Your task to perform on an android device: uninstall "Pinterest" Image 0: 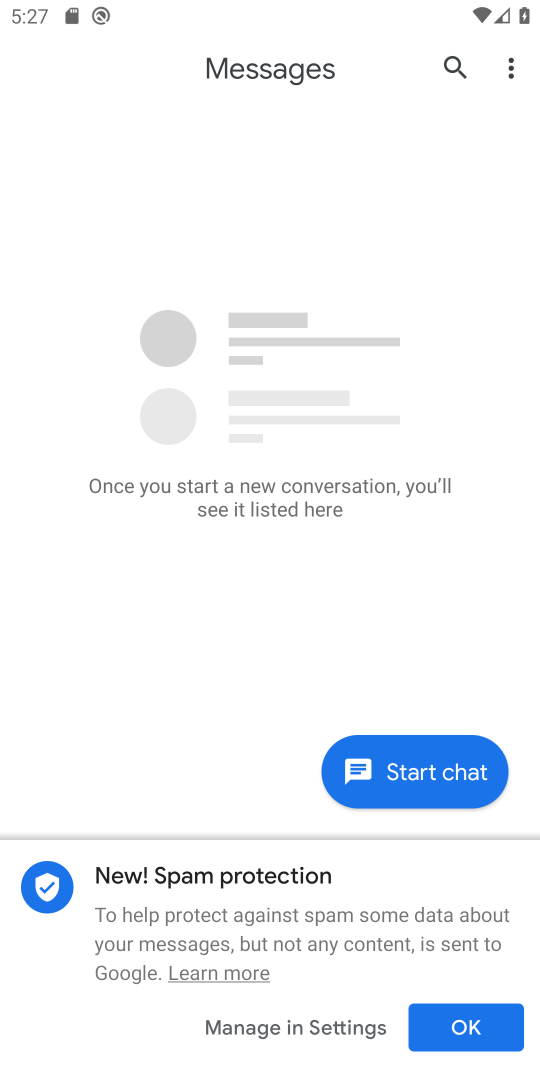
Step 0: press back button
Your task to perform on an android device: uninstall "Pinterest" Image 1: 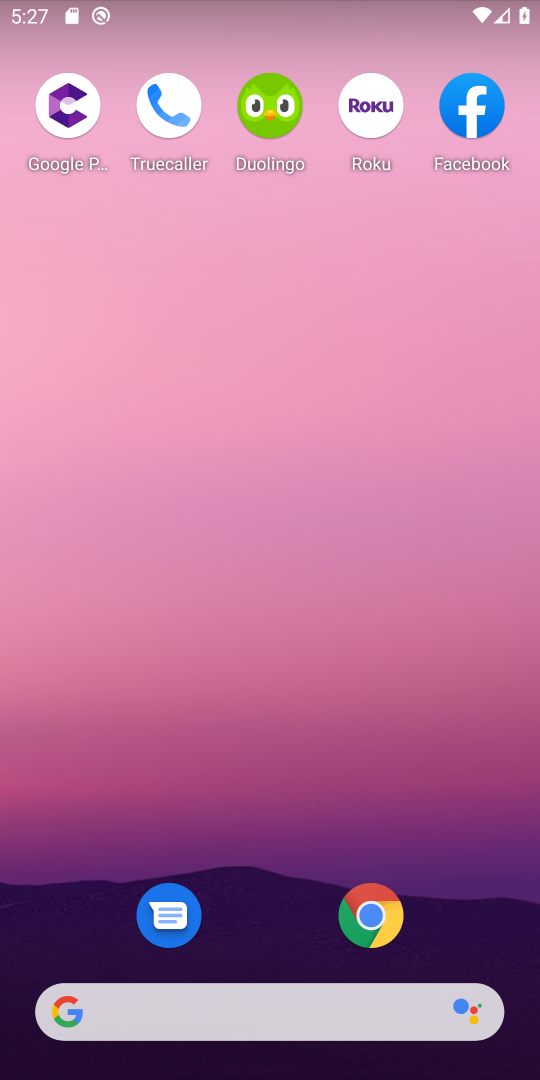
Step 1: drag from (139, 798) to (211, 120)
Your task to perform on an android device: uninstall "Pinterest" Image 2: 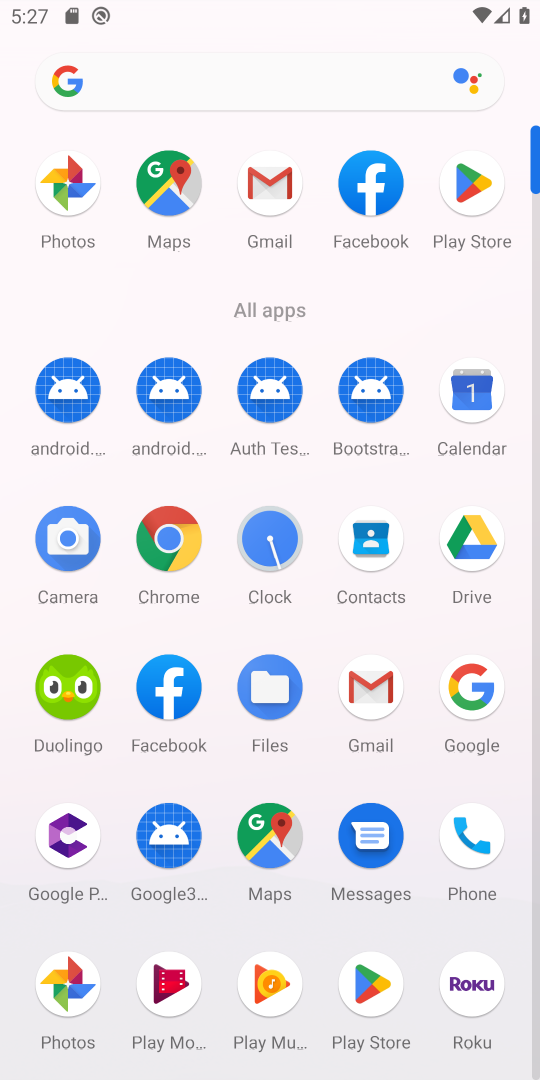
Step 2: click (474, 188)
Your task to perform on an android device: uninstall "Pinterest" Image 3: 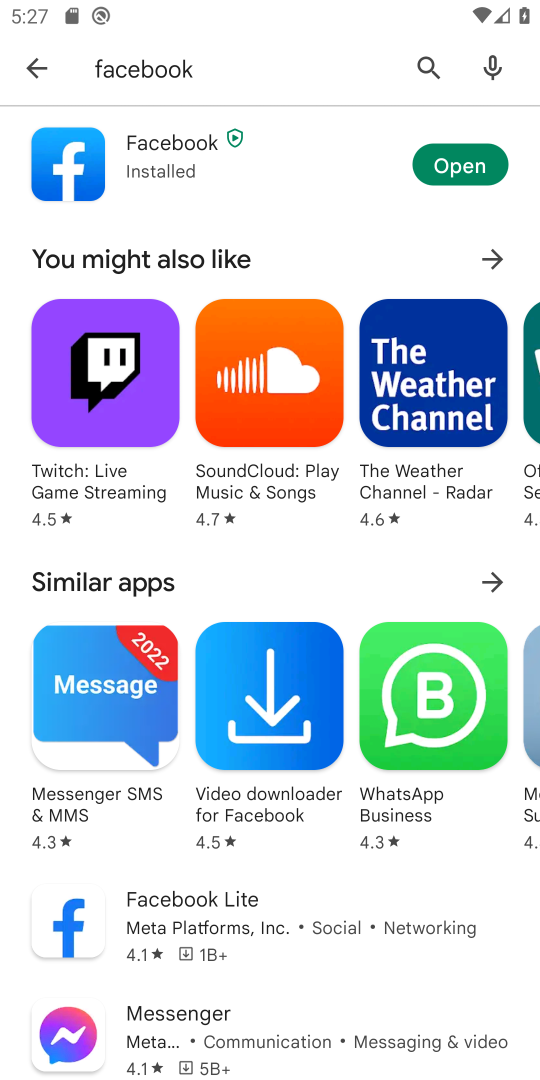
Step 3: click (412, 64)
Your task to perform on an android device: uninstall "Pinterest" Image 4: 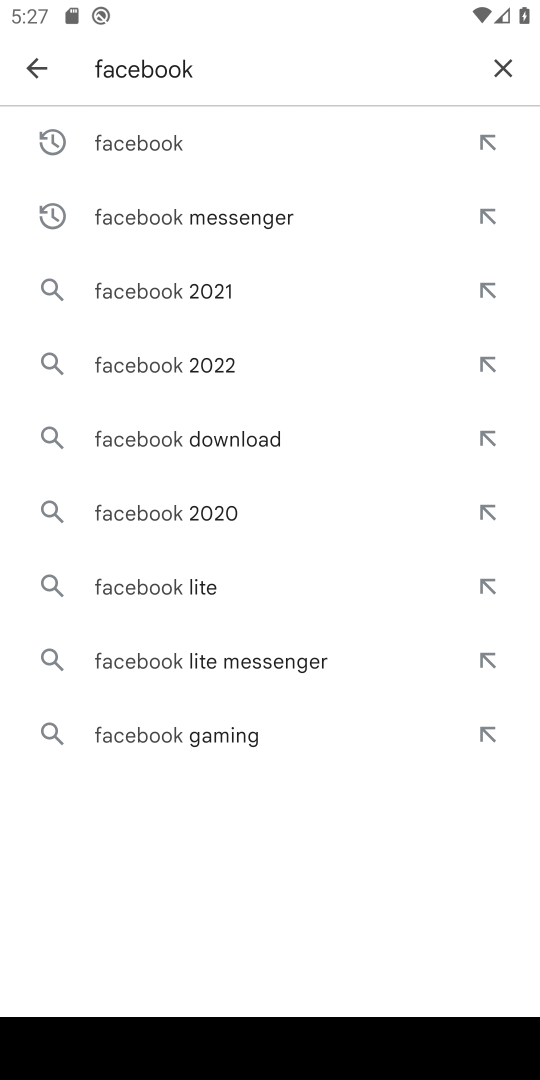
Step 4: click (507, 60)
Your task to perform on an android device: uninstall "Pinterest" Image 5: 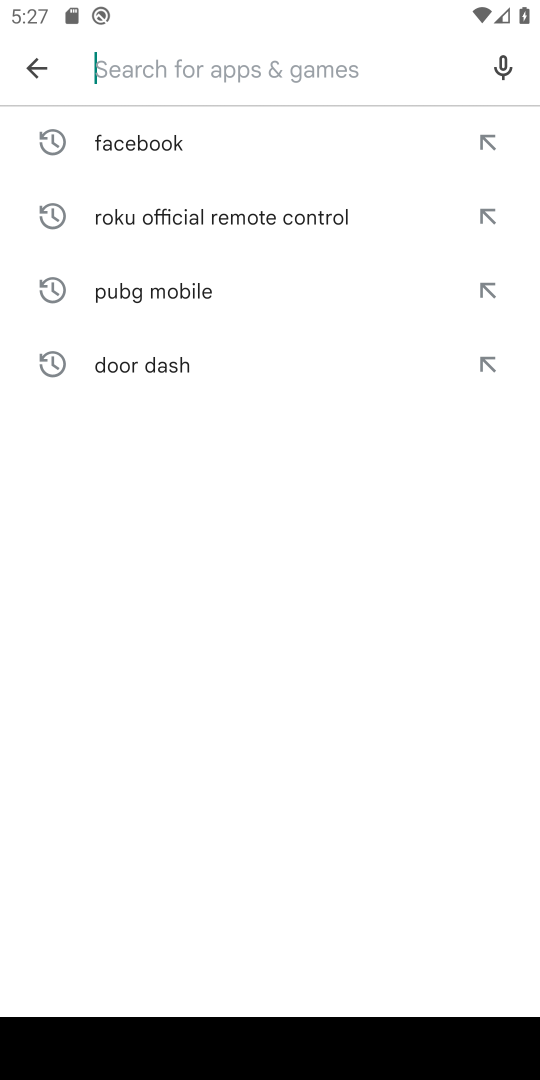
Step 5: click (157, 82)
Your task to perform on an android device: uninstall "Pinterest" Image 6: 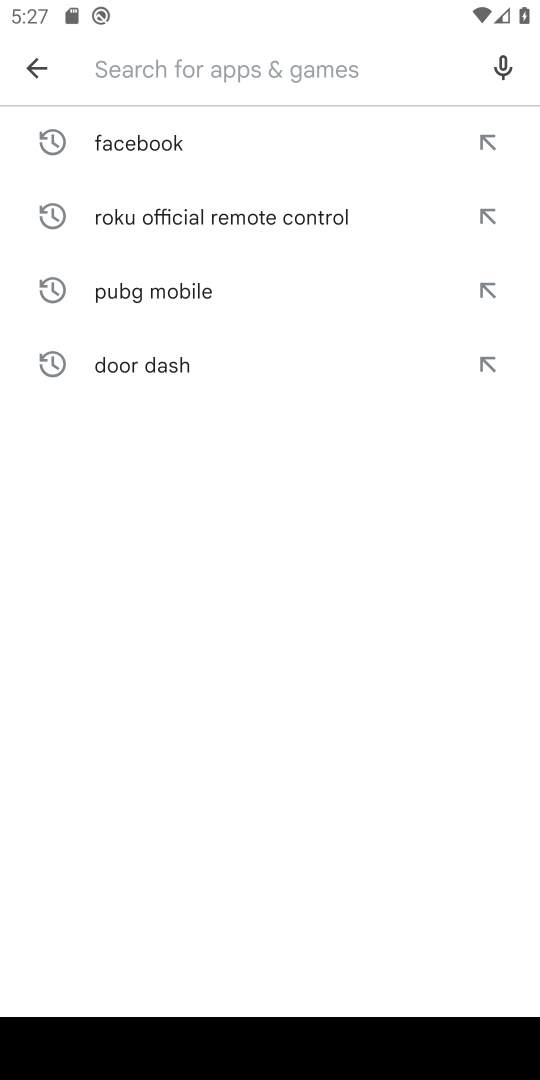
Step 6: type "pinterest"
Your task to perform on an android device: uninstall "Pinterest" Image 7: 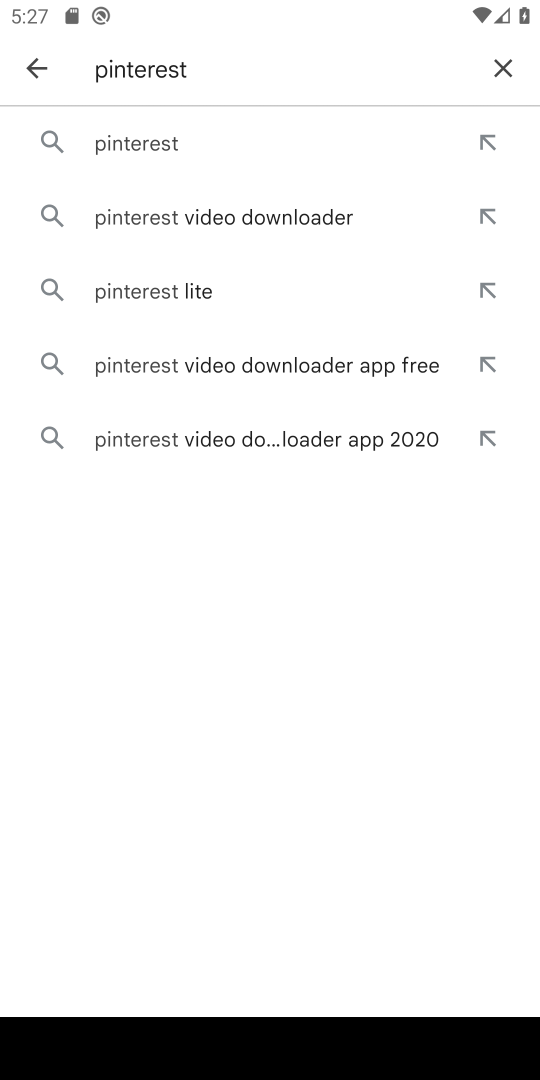
Step 7: click (153, 134)
Your task to perform on an android device: uninstall "Pinterest" Image 8: 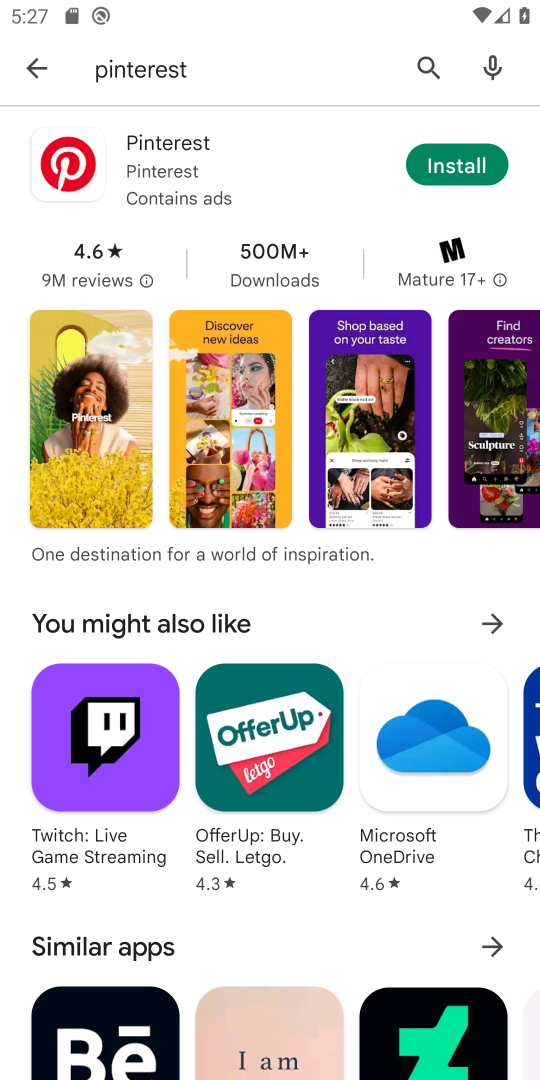
Step 8: task complete